Your task to perform on an android device: Open calendar and show me the first week of next month Image 0: 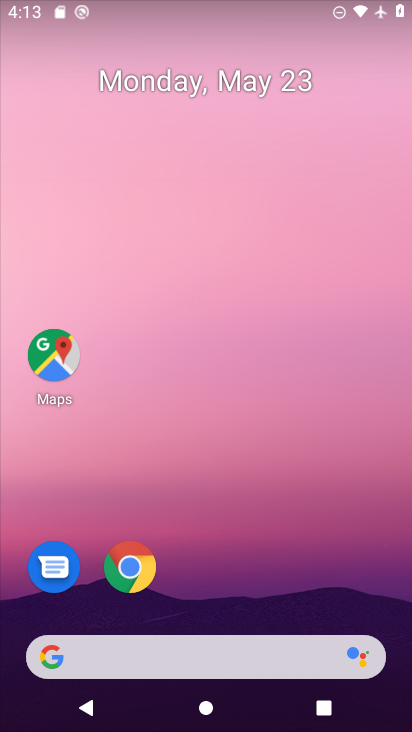
Step 0: drag from (384, 604) to (342, 76)
Your task to perform on an android device: Open calendar and show me the first week of next month Image 1: 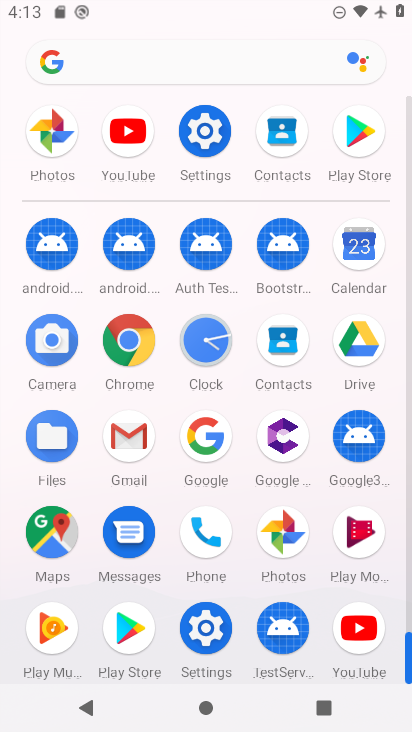
Step 1: click (347, 250)
Your task to perform on an android device: Open calendar and show me the first week of next month Image 2: 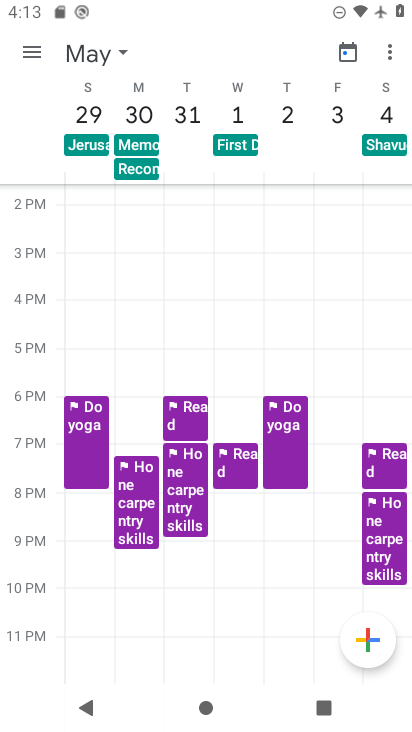
Step 2: click (112, 48)
Your task to perform on an android device: Open calendar and show me the first week of next month Image 3: 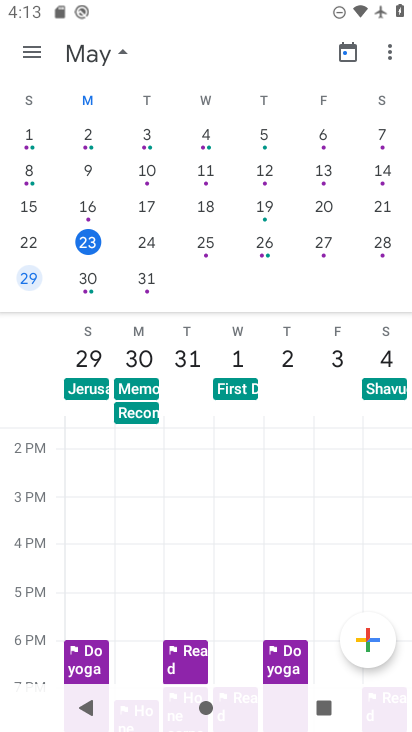
Step 3: drag from (362, 212) to (1, 151)
Your task to perform on an android device: Open calendar and show me the first week of next month Image 4: 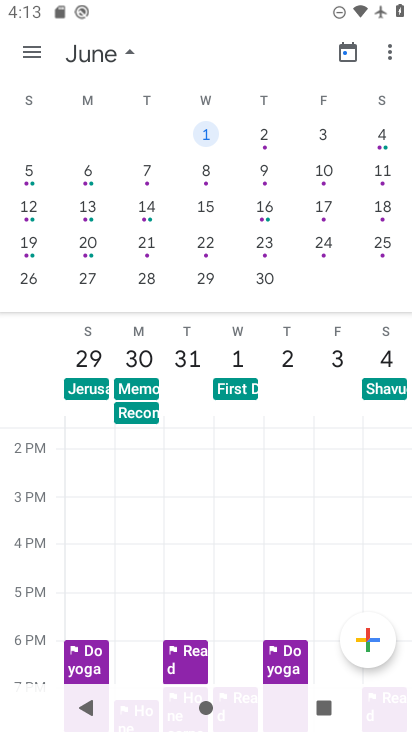
Step 4: click (205, 133)
Your task to perform on an android device: Open calendar and show me the first week of next month Image 5: 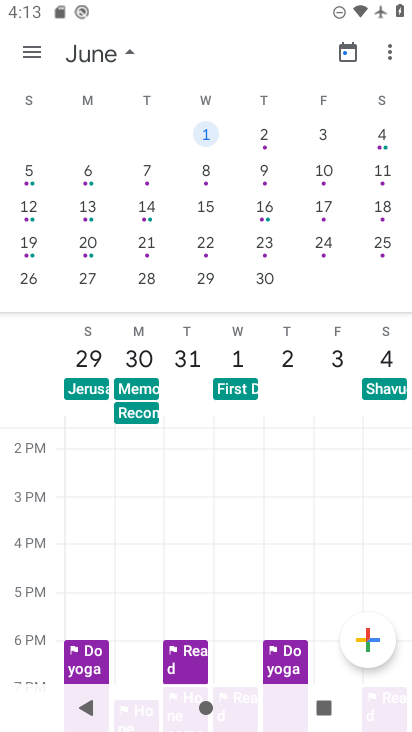
Step 5: task complete